Your task to perform on an android device: Go to notification settings Image 0: 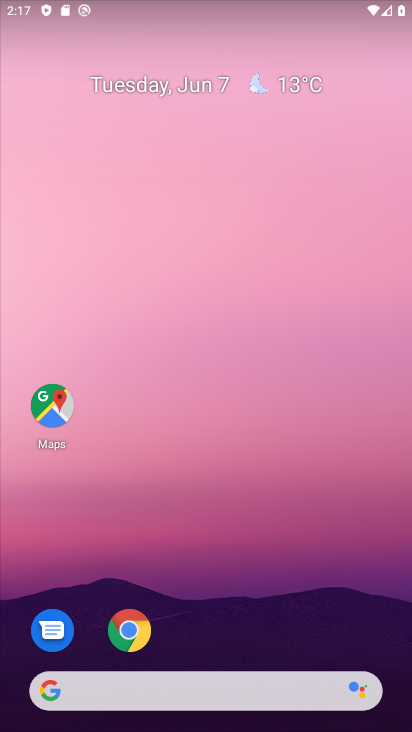
Step 0: drag from (167, 704) to (293, 151)
Your task to perform on an android device: Go to notification settings Image 1: 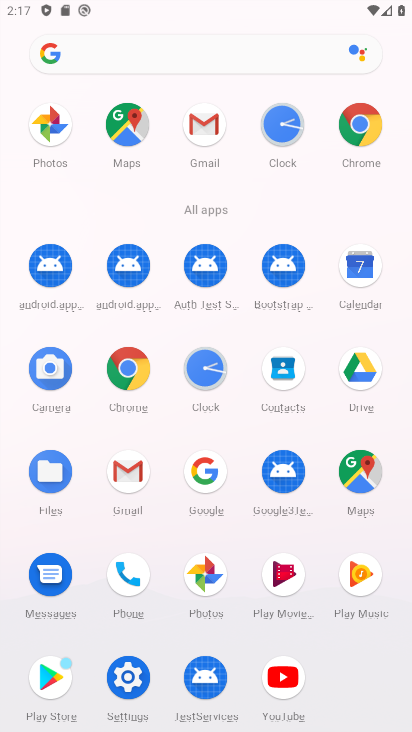
Step 1: click (124, 669)
Your task to perform on an android device: Go to notification settings Image 2: 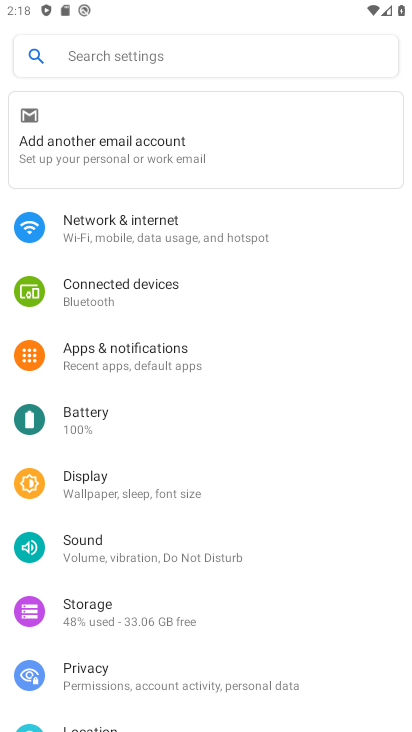
Step 2: click (140, 356)
Your task to perform on an android device: Go to notification settings Image 3: 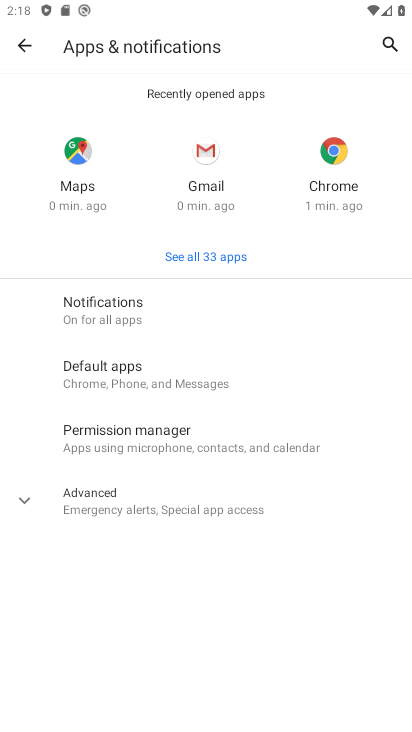
Step 3: task complete